Your task to perform on an android device: add a label to a message in the gmail app Image 0: 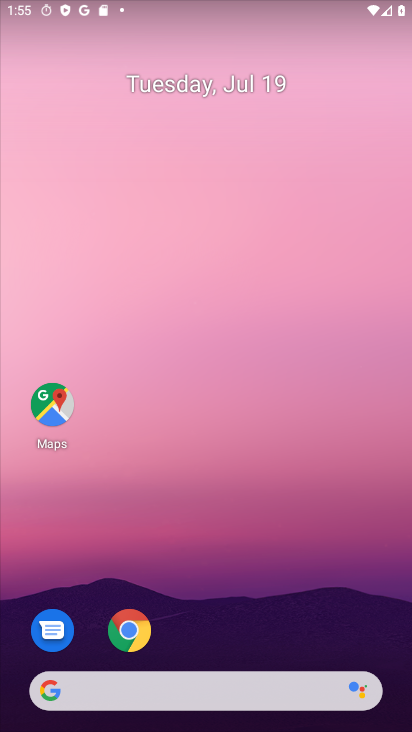
Step 0: drag from (330, 616) to (325, 17)
Your task to perform on an android device: add a label to a message in the gmail app Image 1: 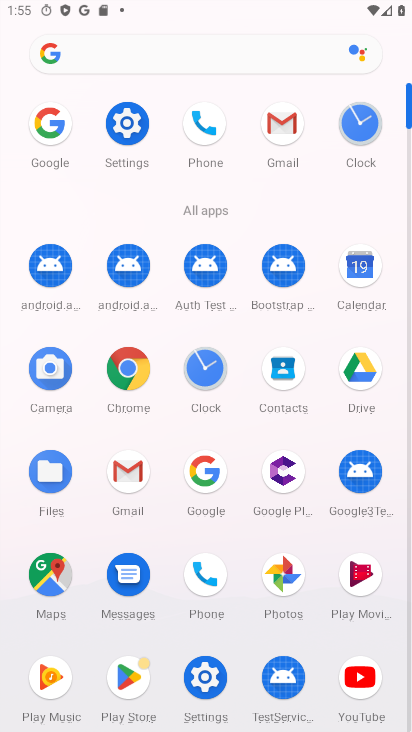
Step 1: click (281, 123)
Your task to perform on an android device: add a label to a message in the gmail app Image 2: 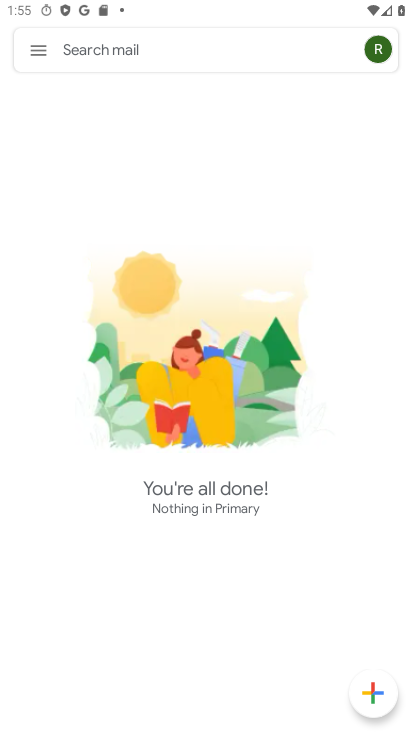
Step 2: click (33, 37)
Your task to perform on an android device: add a label to a message in the gmail app Image 3: 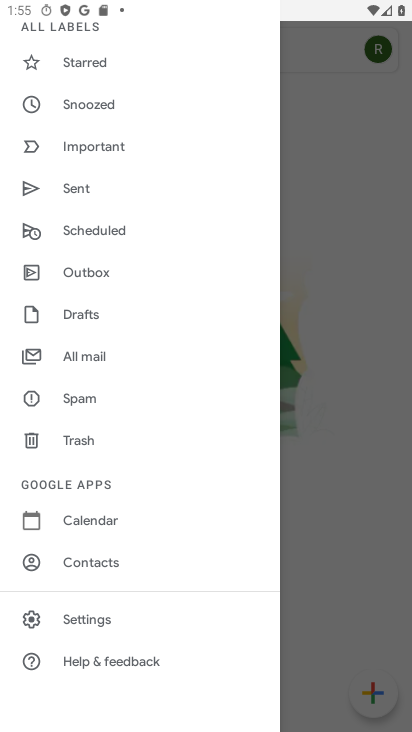
Step 3: click (107, 366)
Your task to perform on an android device: add a label to a message in the gmail app Image 4: 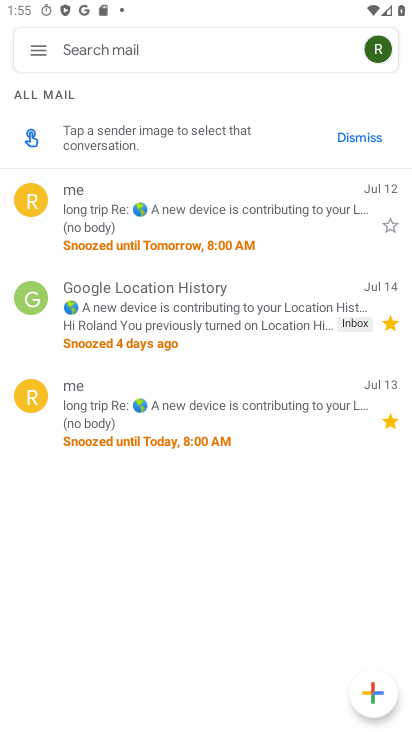
Step 4: click (154, 208)
Your task to perform on an android device: add a label to a message in the gmail app Image 5: 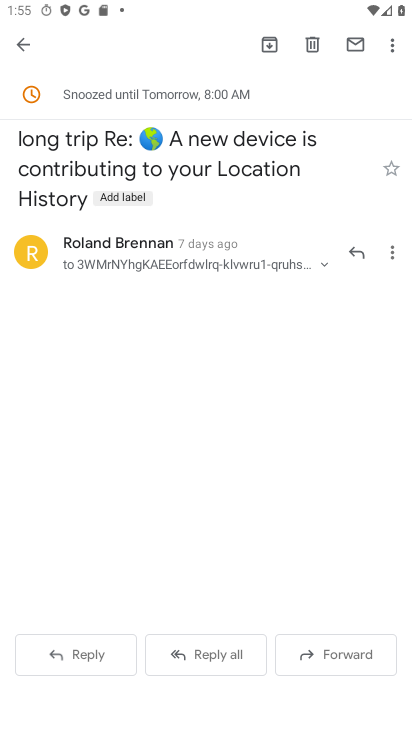
Step 5: click (129, 196)
Your task to perform on an android device: add a label to a message in the gmail app Image 6: 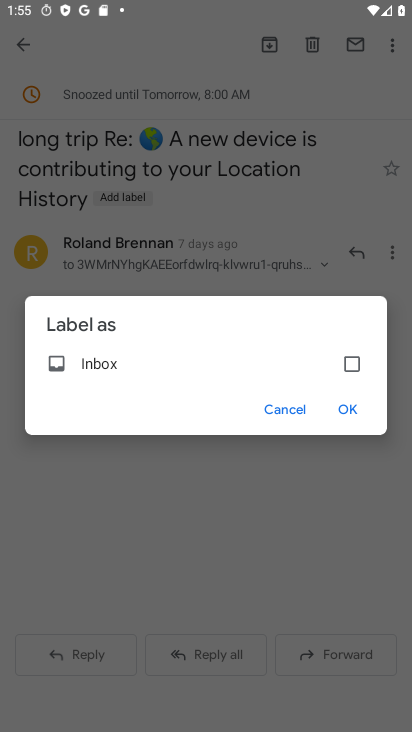
Step 6: click (358, 361)
Your task to perform on an android device: add a label to a message in the gmail app Image 7: 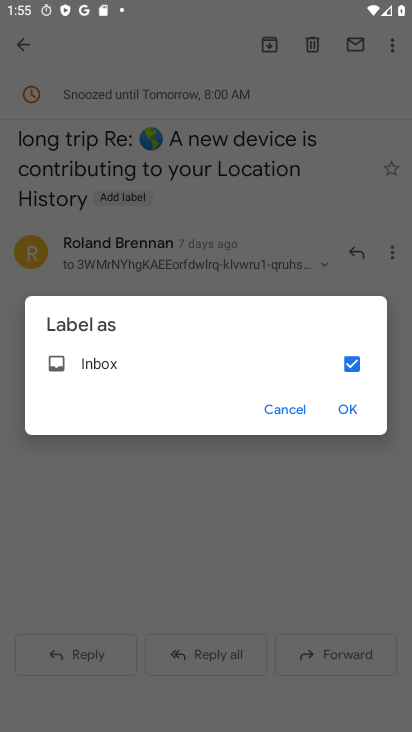
Step 7: click (348, 411)
Your task to perform on an android device: add a label to a message in the gmail app Image 8: 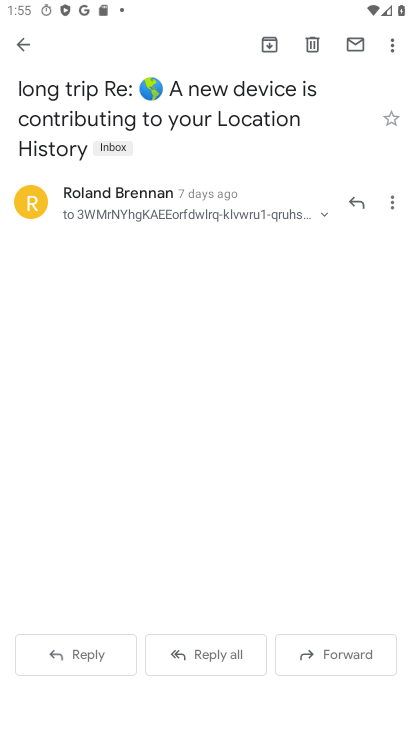
Step 8: task complete